Your task to perform on an android device: turn on javascript in the chrome app Image 0: 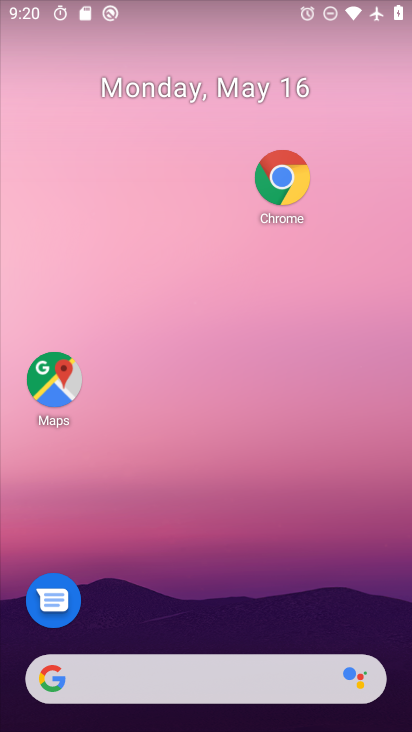
Step 0: click (296, 178)
Your task to perform on an android device: turn on javascript in the chrome app Image 1: 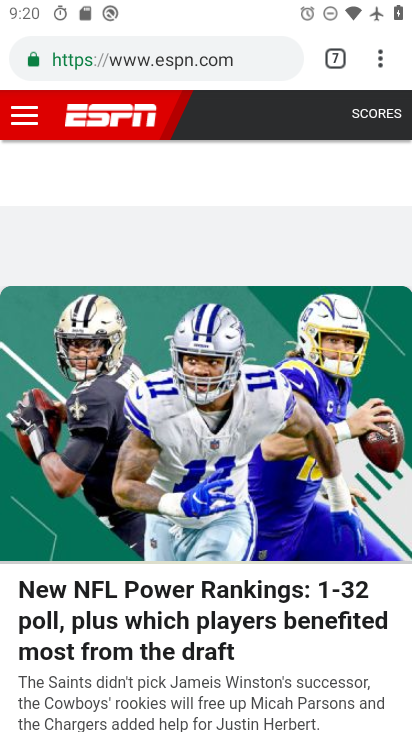
Step 1: drag from (379, 67) to (239, 619)
Your task to perform on an android device: turn on javascript in the chrome app Image 2: 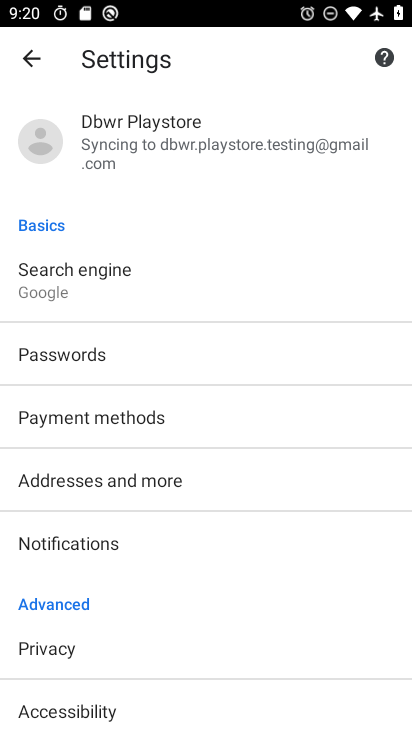
Step 2: drag from (161, 642) to (218, 326)
Your task to perform on an android device: turn on javascript in the chrome app Image 3: 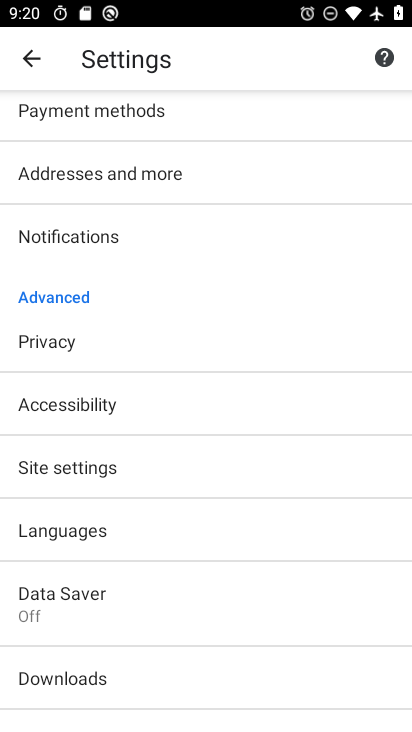
Step 3: click (73, 470)
Your task to perform on an android device: turn on javascript in the chrome app Image 4: 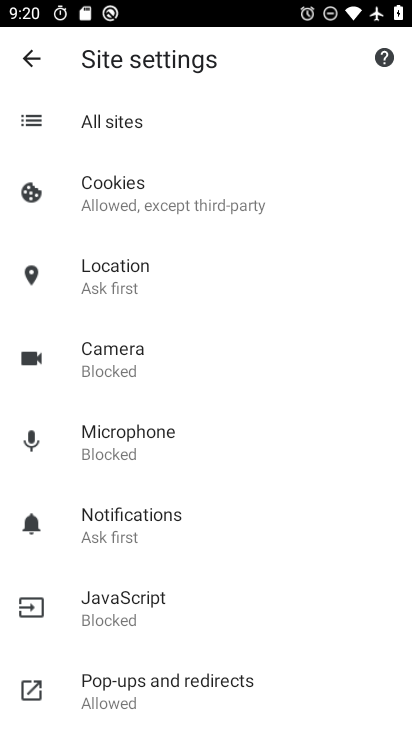
Step 4: click (121, 600)
Your task to perform on an android device: turn on javascript in the chrome app Image 5: 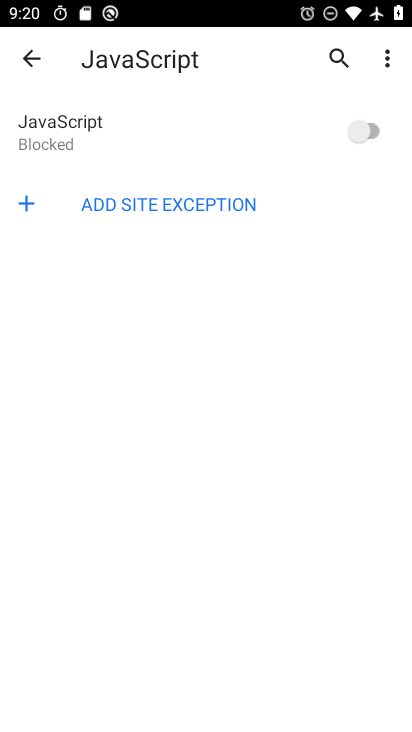
Step 5: click (370, 135)
Your task to perform on an android device: turn on javascript in the chrome app Image 6: 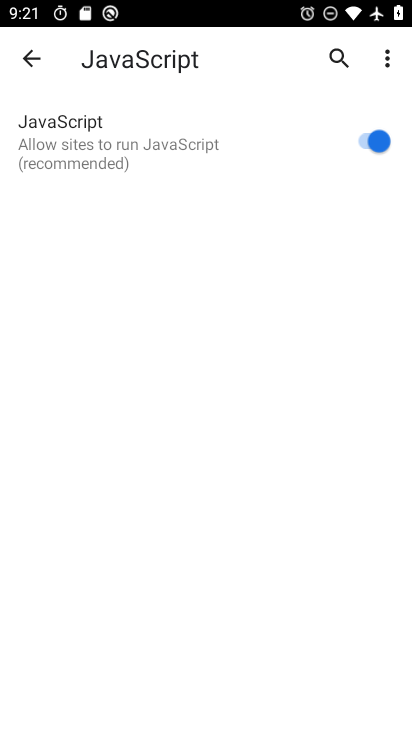
Step 6: task complete